Your task to perform on an android device: Search for vegetarian restaurants on Maps Image 0: 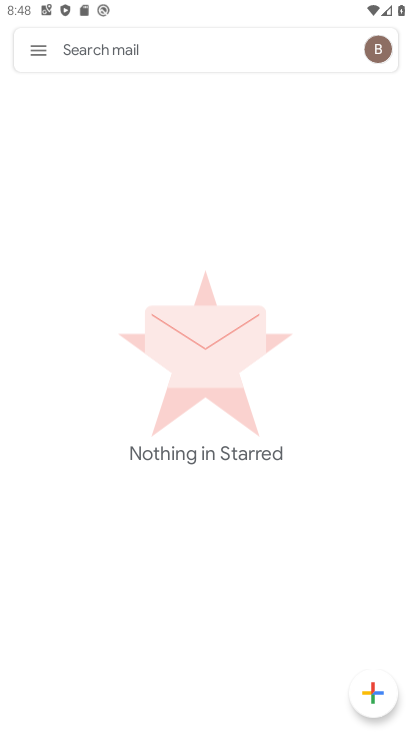
Step 0: press home button
Your task to perform on an android device: Search for vegetarian restaurants on Maps Image 1: 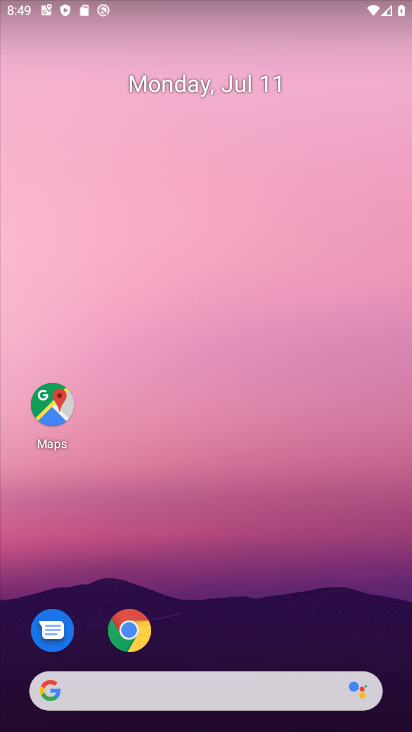
Step 1: click (52, 398)
Your task to perform on an android device: Search for vegetarian restaurants on Maps Image 2: 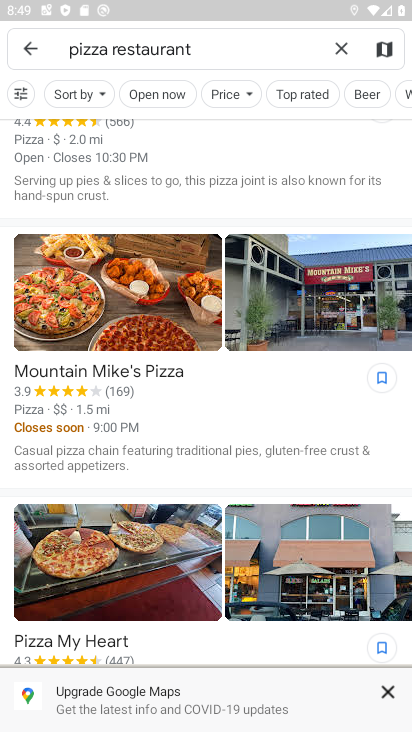
Step 2: click (338, 41)
Your task to perform on an android device: Search for vegetarian restaurants on Maps Image 3: 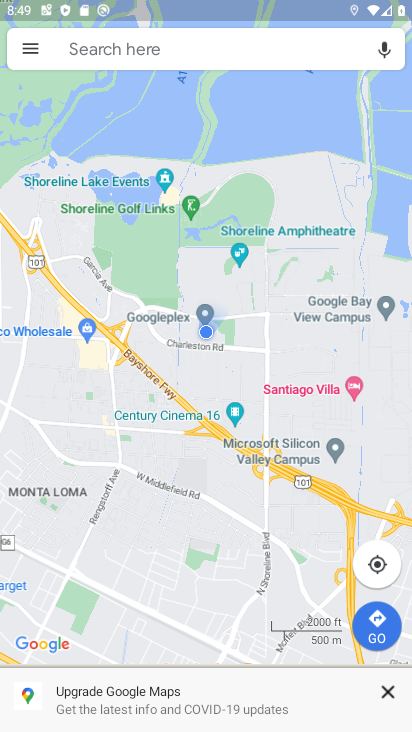
Step 3: click (152, 53)
Your task to perform on an android device: Search for vegetarian restaurants on Maps Image 4: 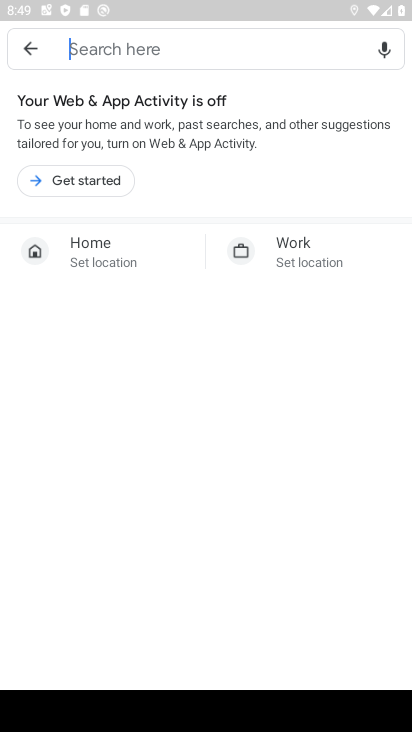
Step 4: type "vegetarian restaurants"
Your task to perform on an android device: Search for vegetarian restaurants on Maps Image 5: 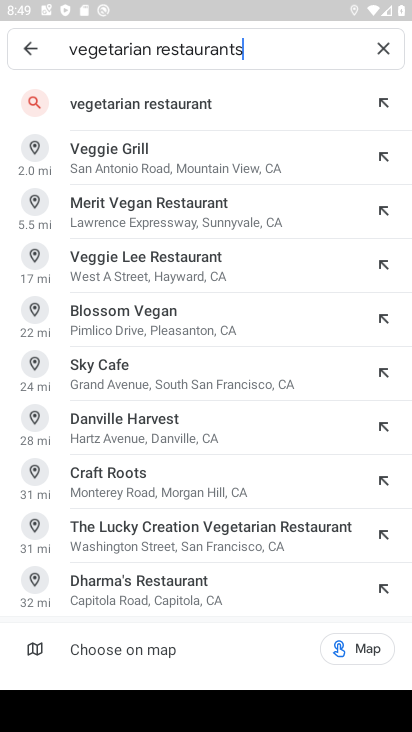
Step 5: click (153, 111)
Your task to perform on an android device: Search for vegetarian restaurants on Maps Image 6: 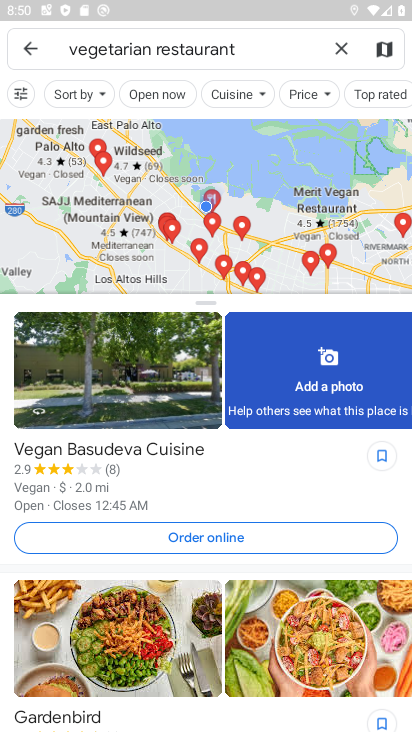
Step 6: task complete